Your task to perform on an android device: install app "Skype" Image 0: 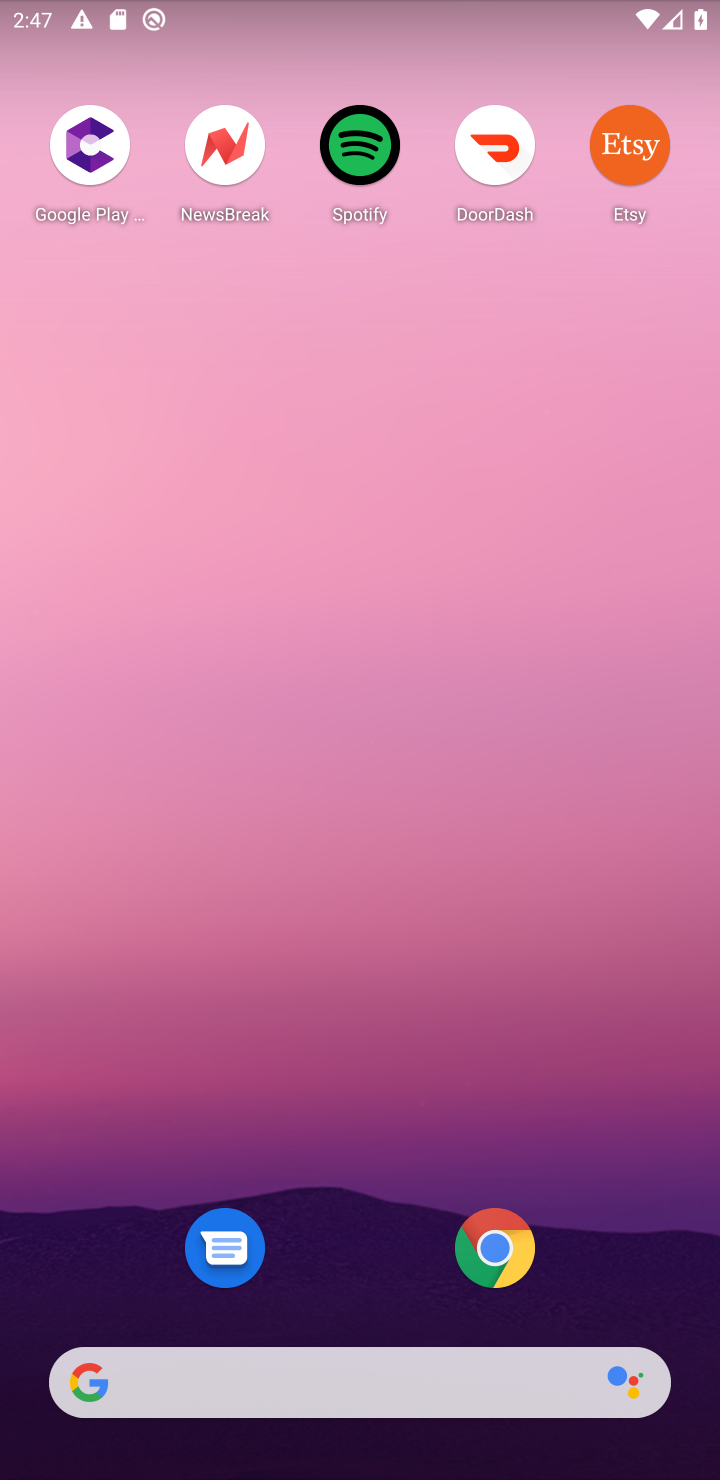
Step 0: drag from (346, 1085) to (334, 108)
Your task to perform on an android device: install app "Skype" Image 1: 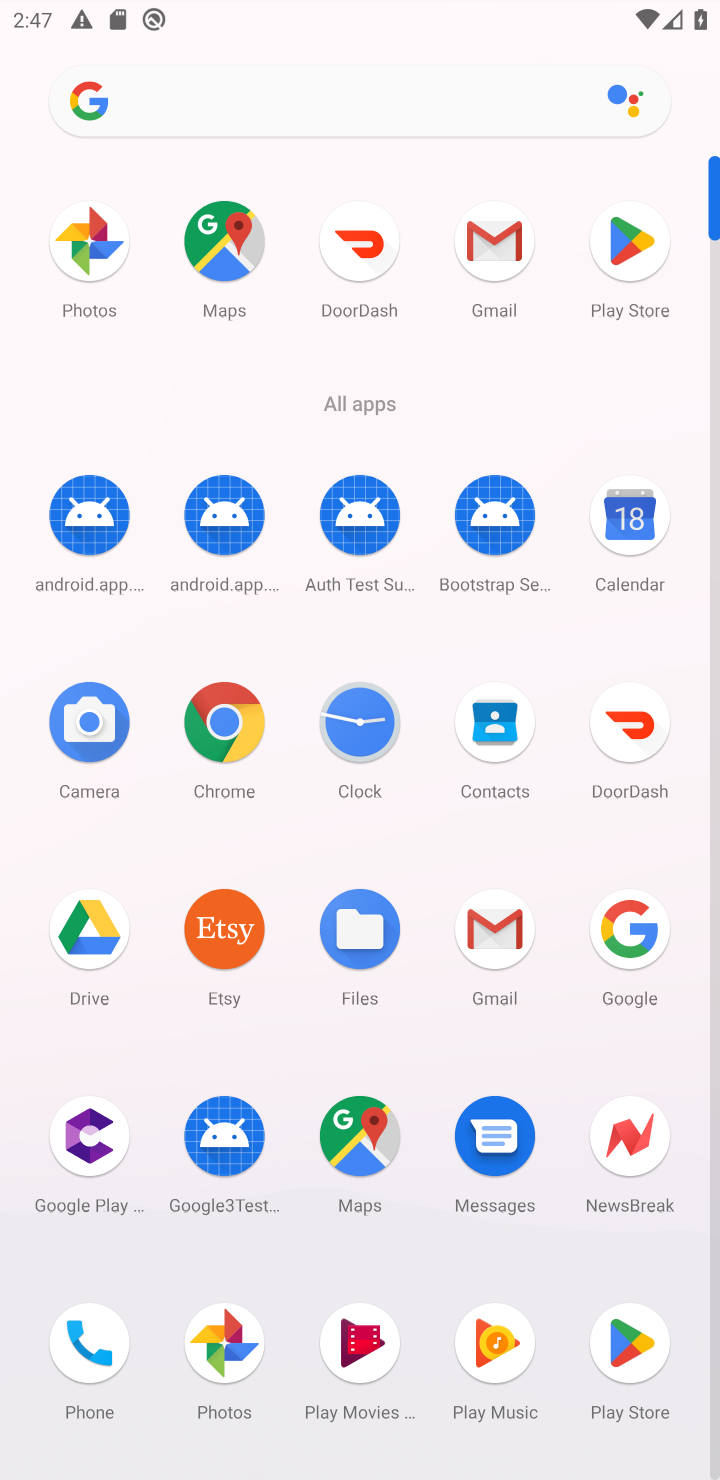
Step 1: click (618, 242)
Your task to perform on an android device: install app "Skype" Image 2: 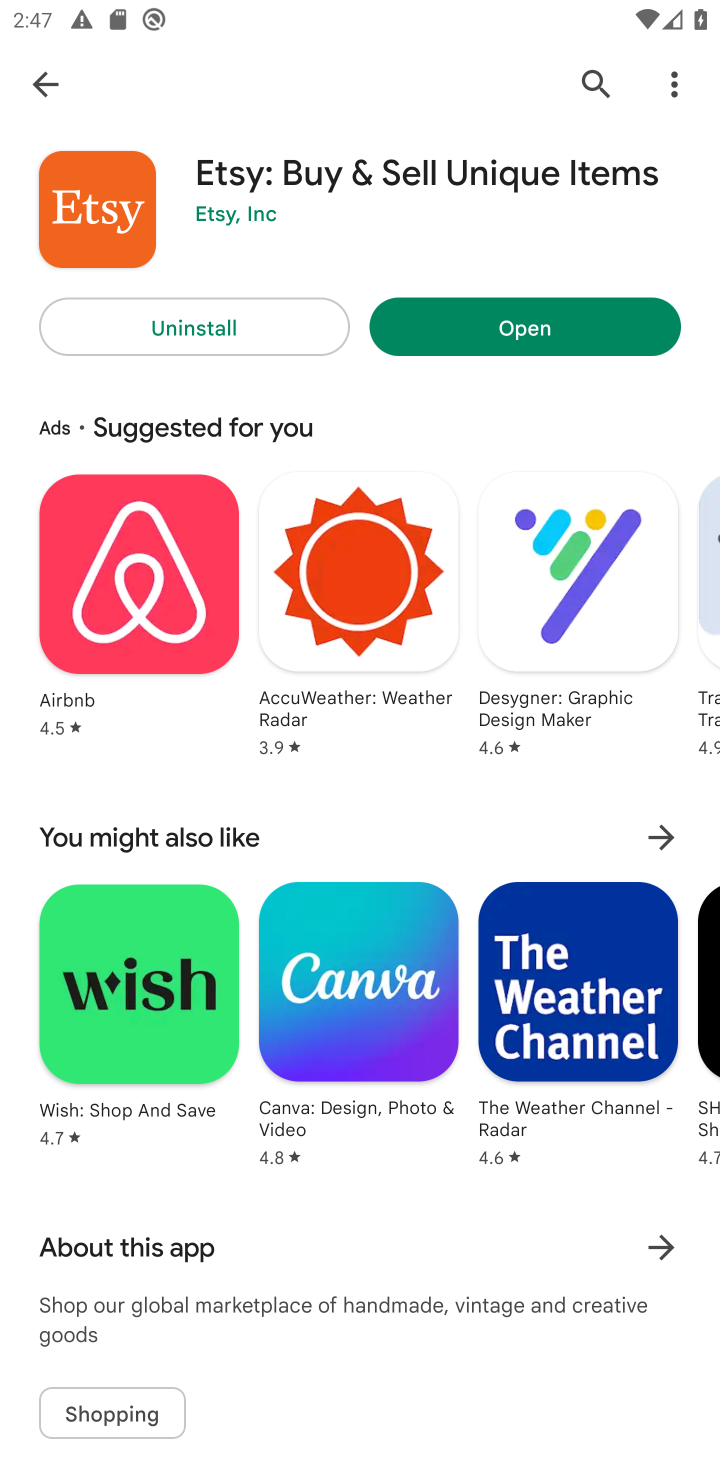
Step 2: click (592, 78)
Your task to perform on an android device: install app "Skype" Image 3: 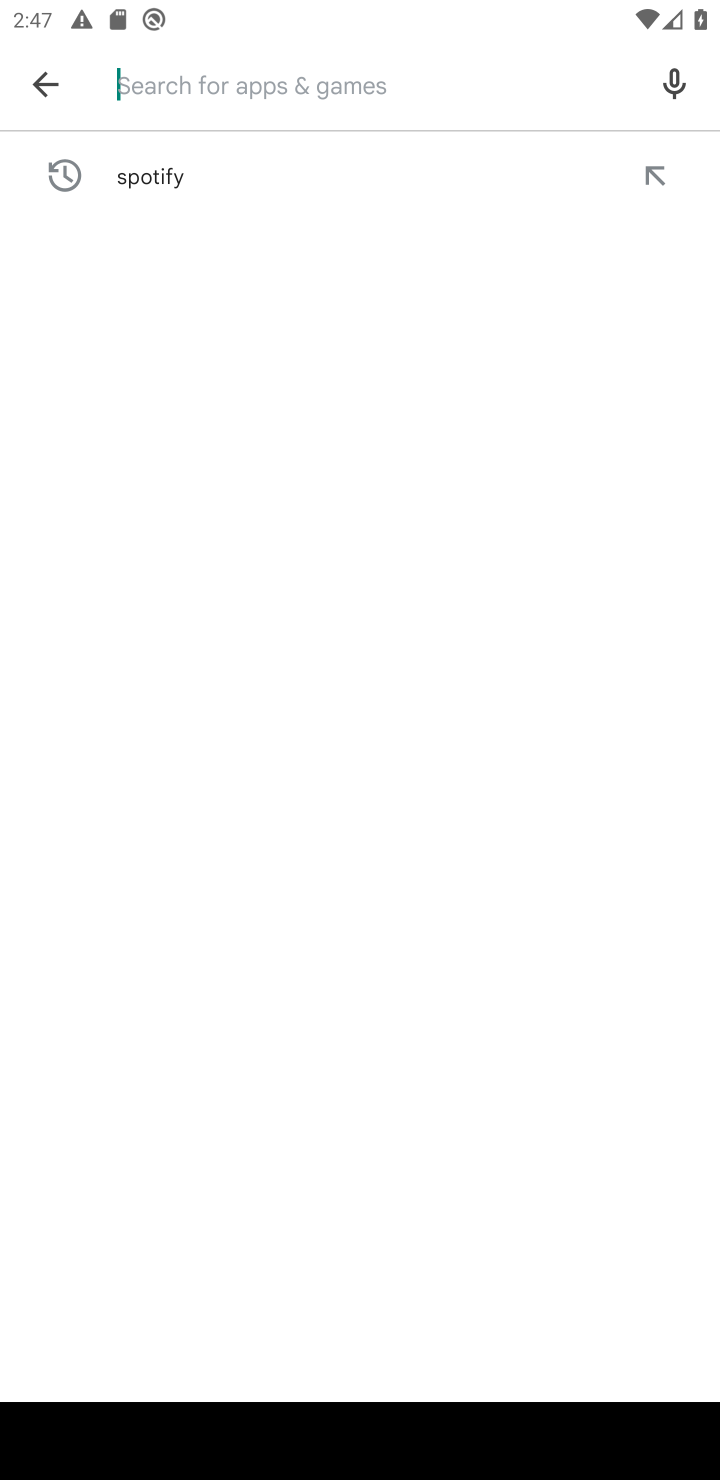
Step 3: type "Skype"
Your task to perform on an android device: install app "Skype" Image 4: 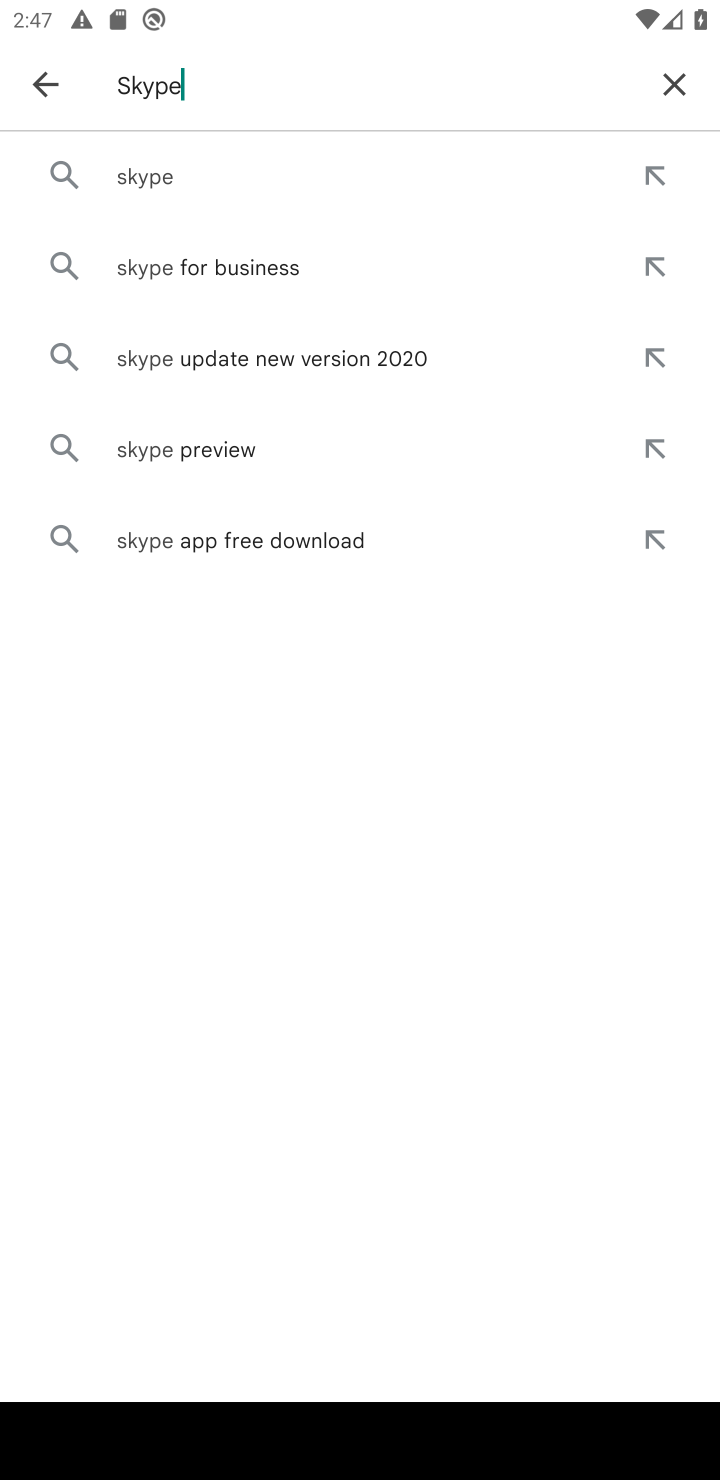
Step 4: click (136, 168)
Your task to perform on an android device: install app "Skype" Image 5: 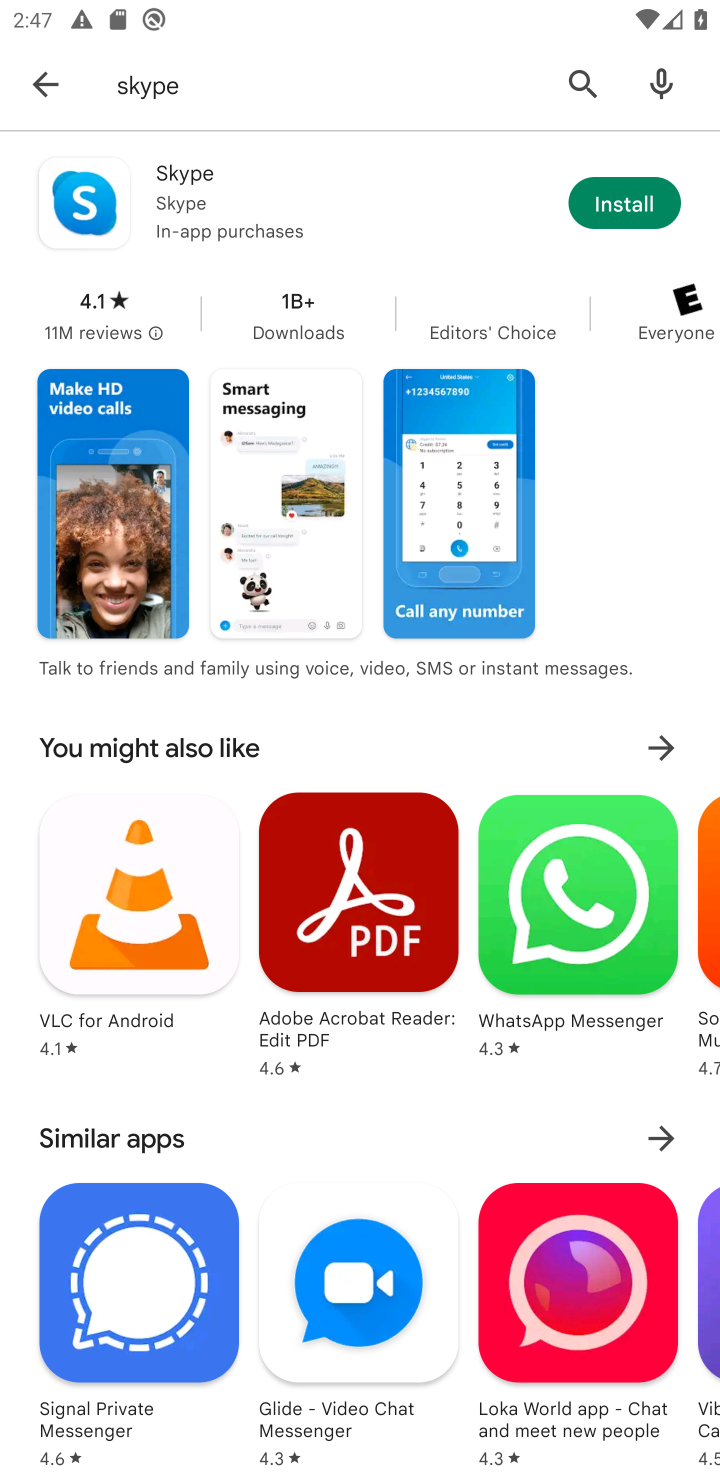
Step 5: click (615, 198)
Your task to perform on an android device: install app "Skype" Image 6: 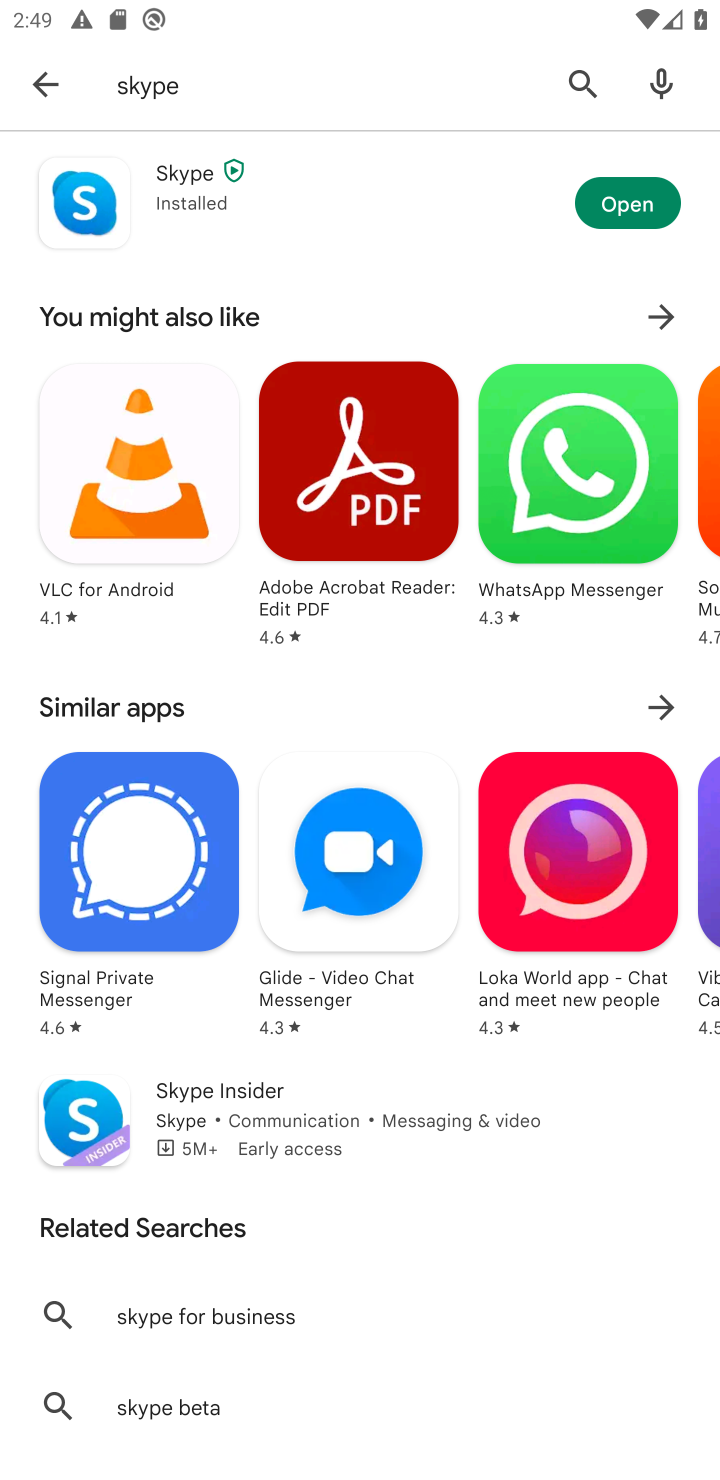
Step 6: task complete